Your task to perform on an android device: Open sound settings Image 0: 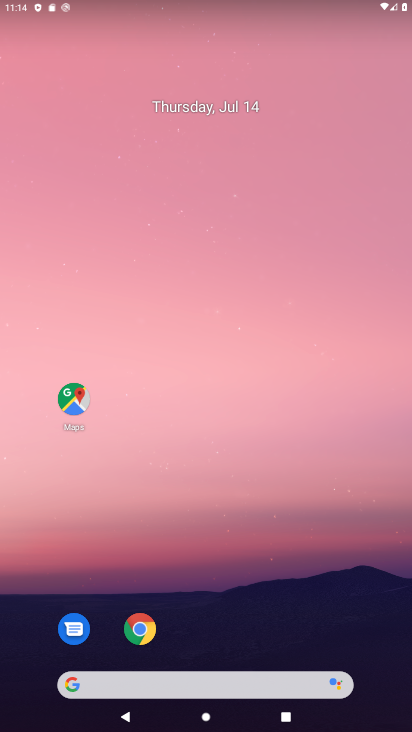
Step 0: drag from (294, 633) to (253, 116)
Your task to perform on an android device: Open sound settings Image 1: 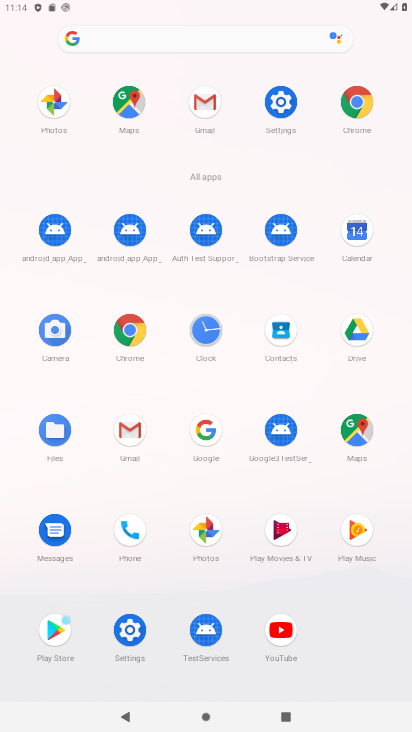
Step 1: click (287, 98)
Your task to perform on an android device: Open sound settings Image 2: 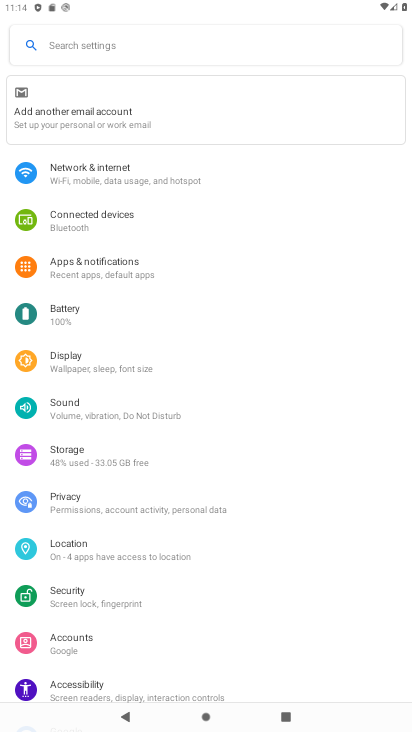
Step 2: click (78, 394)
Your task to perform on an android device: Open sound settings Image 3: 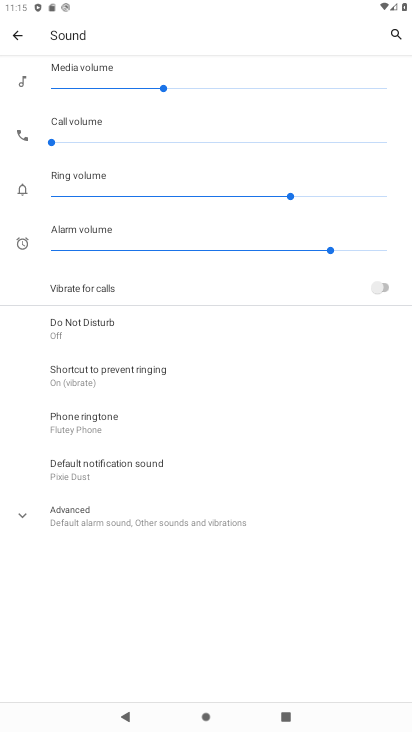
Step 3: task complete